Your task to perform on an android device: Open Youtube and go to "Your channel" Image 0: 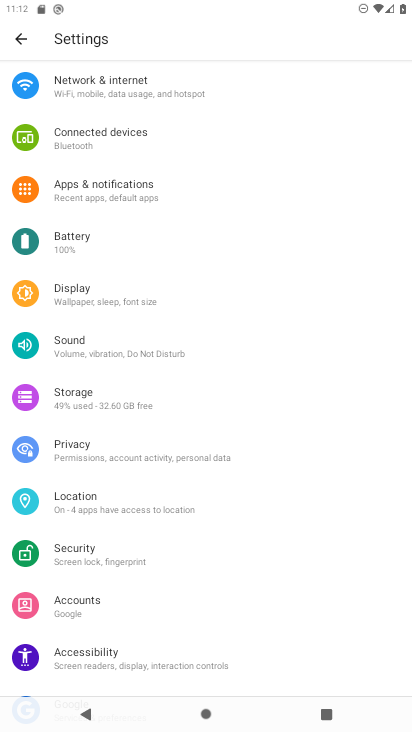
Step 0: press back button
Your task to perform on an android device: Open Youtube and go to "Your channel" Image 1: 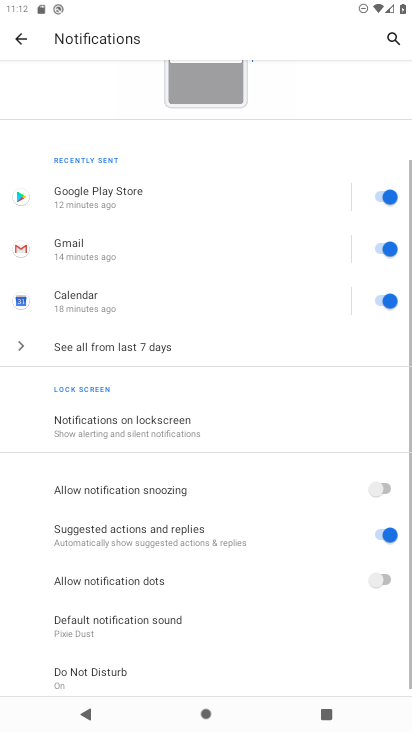
Step 1: press back button
Your task to perform on an android device: Open Youtube and go to "Your channel" Image 2: 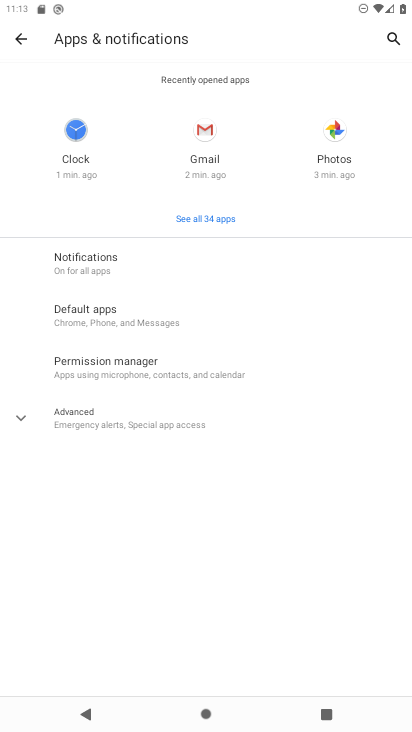
Step 2: press back button
Your task to perform on an android device: Open Youtube and go to "Your channel" Image 3: 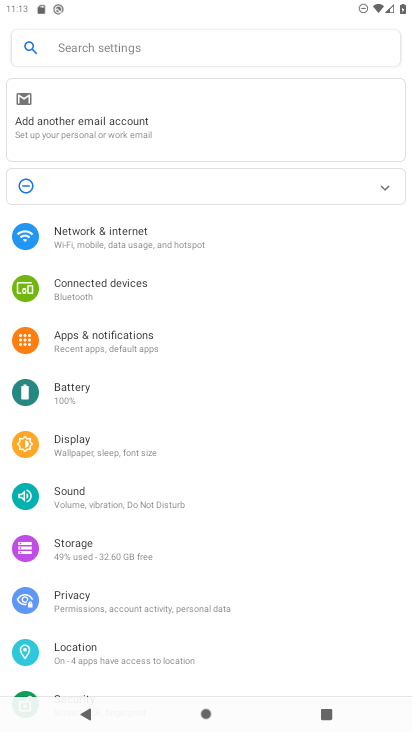
Step 3: press back button
Your task to perform on an android device: Open Youtube and go to "Your channel" Image 4: 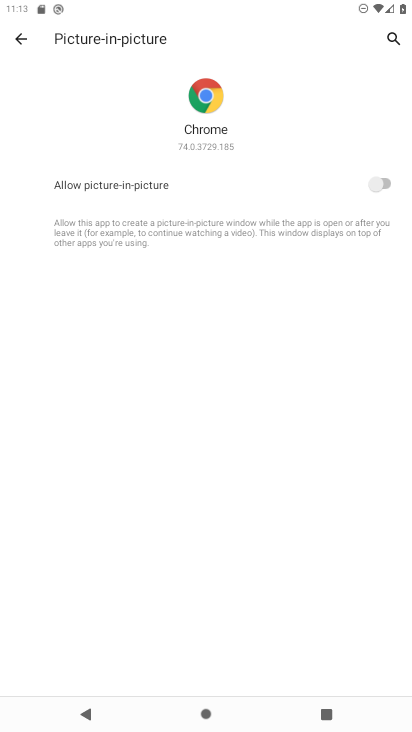
Step 4: press back button
Your task to perform on an android device: Open Youtube and go to "Your channel" Image 5: 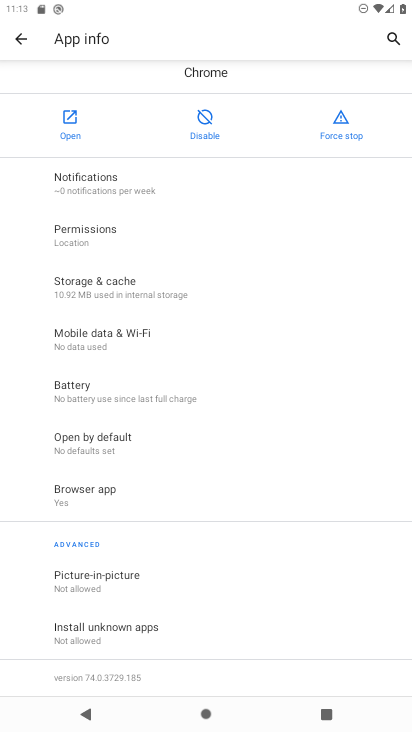
Step 5: press back button
Your task to perform on an android device: Open Youtube and go to "Your channel" Image 6: 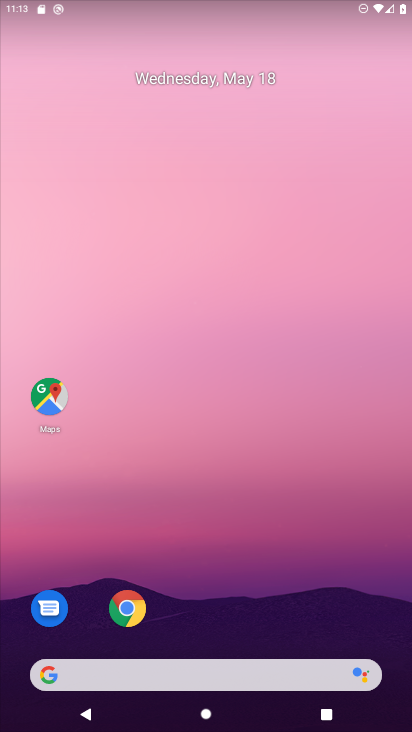
Step 6: drag from (263, 556) to (175, 32)
Your task to perform on an android device: Open Youtube and go to "Your channel" Image 7: 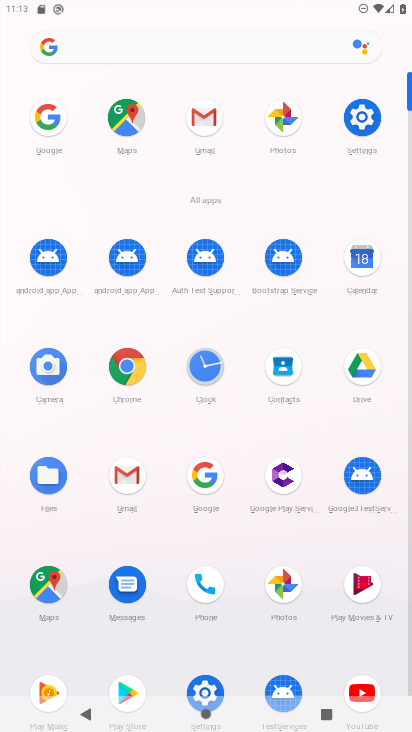
Step 7: drag from (337, 569) to (300, 304)
Your task to perform on an android device: Open Youtube and go to "Your channel" Image 8: 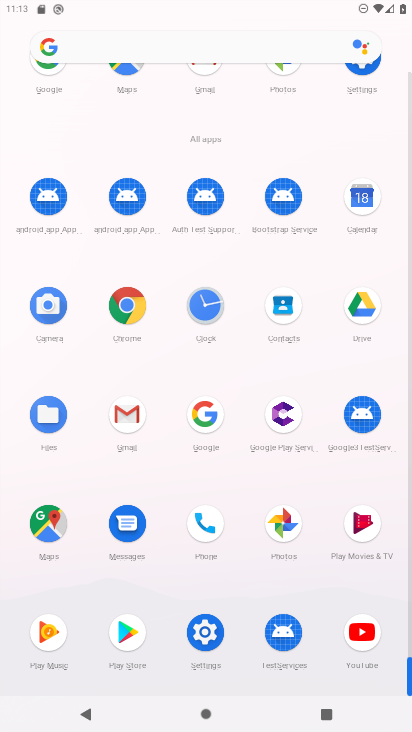
Step 8: click (363, 632)
Your task to perform on an android device: Open Youtube and go to "Your channel" Image 9: 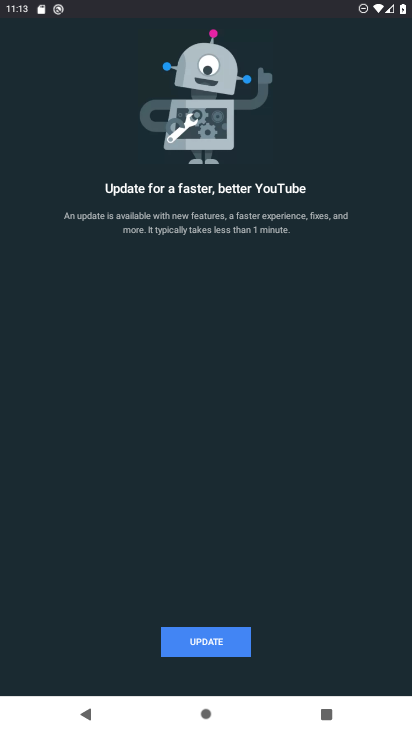
Step 9: click (214, 641)
Your task to perform on an android device: Open Youtube and go to "Your channel" Image 10: 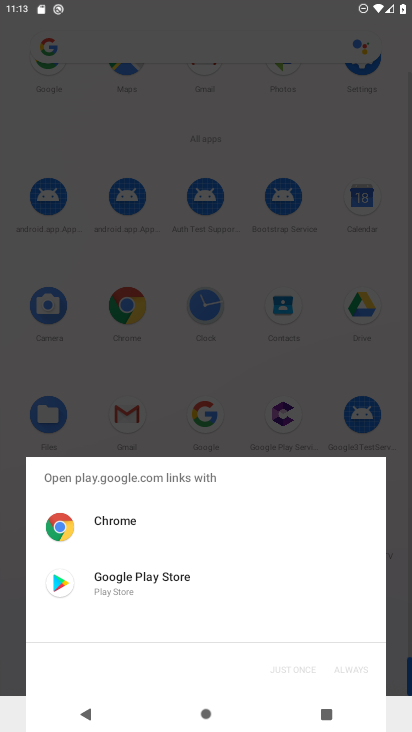
Step 10: click (167, 585)
Your task to perform on an android device: Open Youtube and go to "Your channel" Image 11: 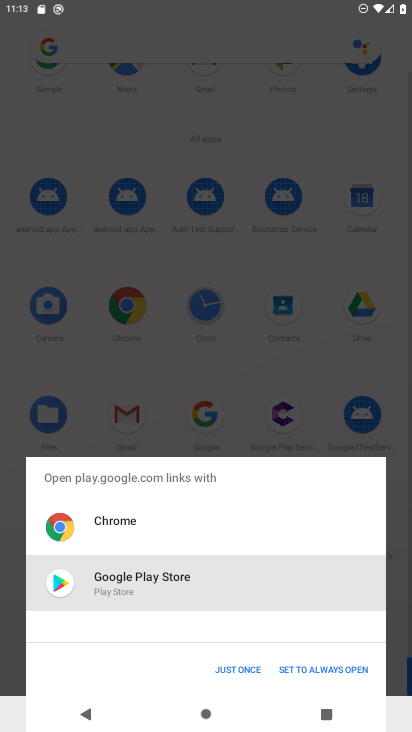
Step 11: click (227, 667)
Your task to perform on an android device: Open Youtube and go to "Your channel" Image 12: 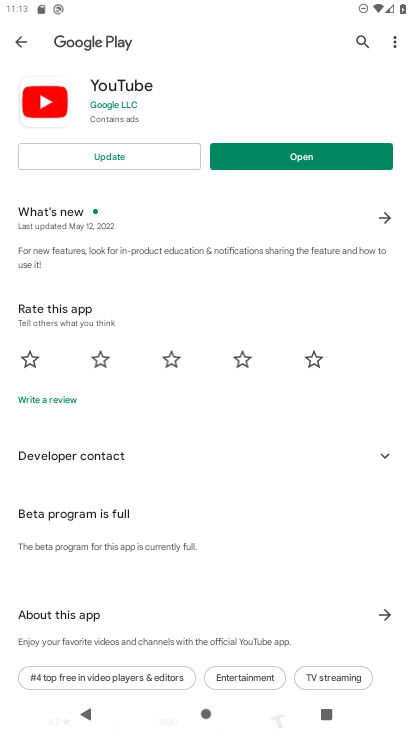
Step 12: click (149, 161)
Your task to perform on an android device: Open Youtube and go to "Your channel" Image 13: 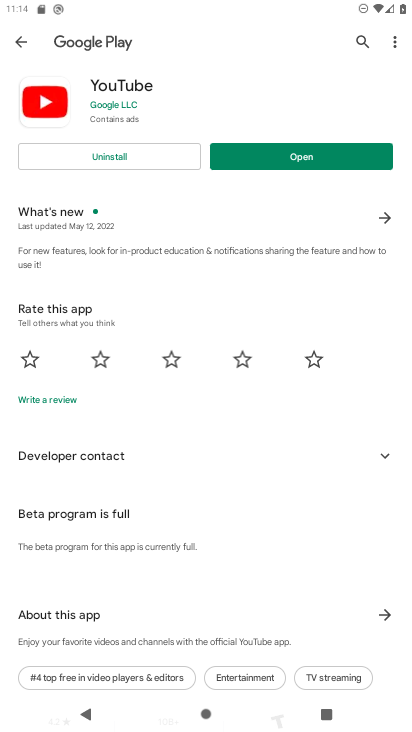
Step 13: click (277, 152)
Your task to perform on an android device: Open Youtube and go to "Your channel" Image 14: 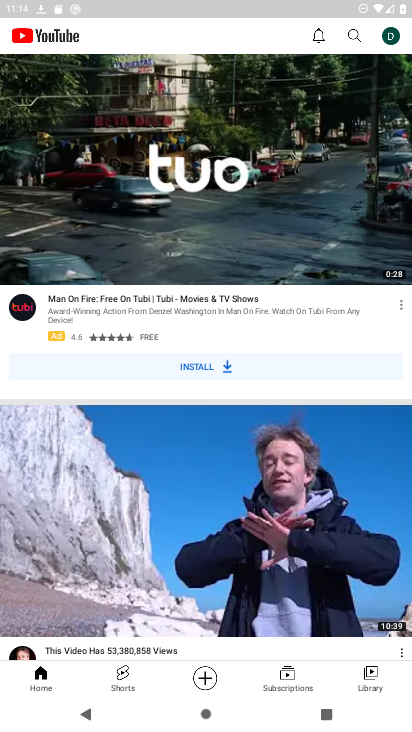
Step 14: click (388, 35)
Your task to perform on an android device: Open Youtube and go to "Your channel" Image 15: 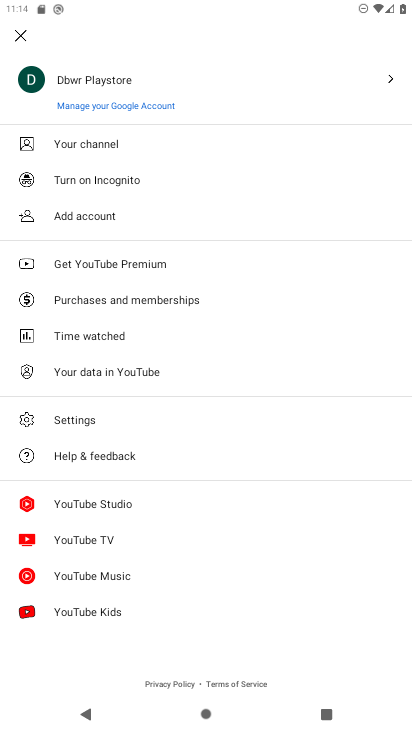
Step 15: click (104, 143)
Your task to perform on an android device: Open Youtube and go to "Your channel" Image 16: 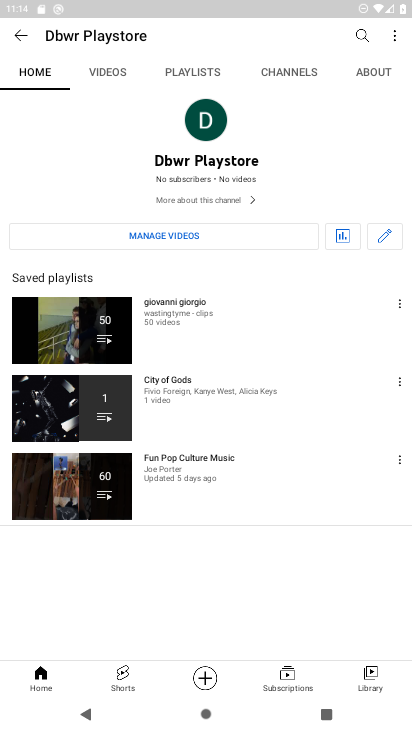
Step 16: task complete